Your task to perform on an android device: Open calendar and show me the first week of next month Image 0: 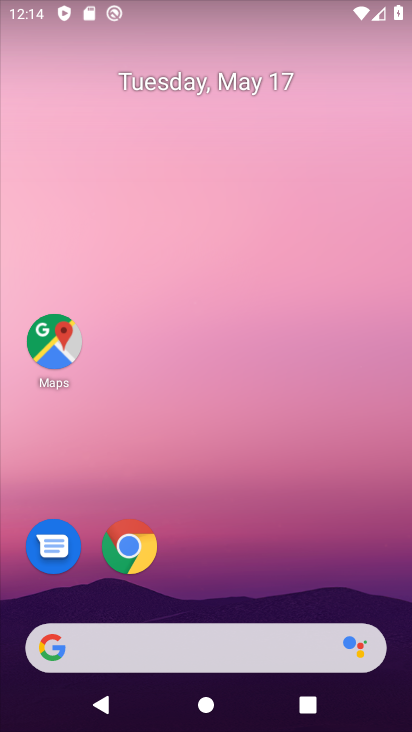
Step 0: drag from (390, 603) to (345, 39)
Your task to perform on an android device: Open calendar and show me the first week of next month Image 1: 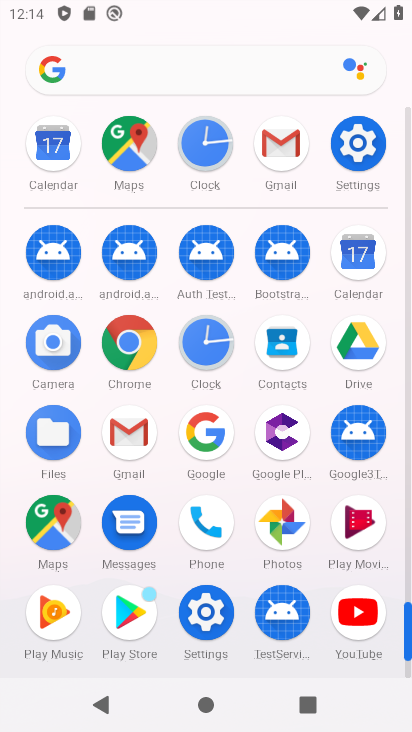
Step 1: click (410, 584)
Your task to perform on an android device: Open calendar and show me the first week of next month Image 2: 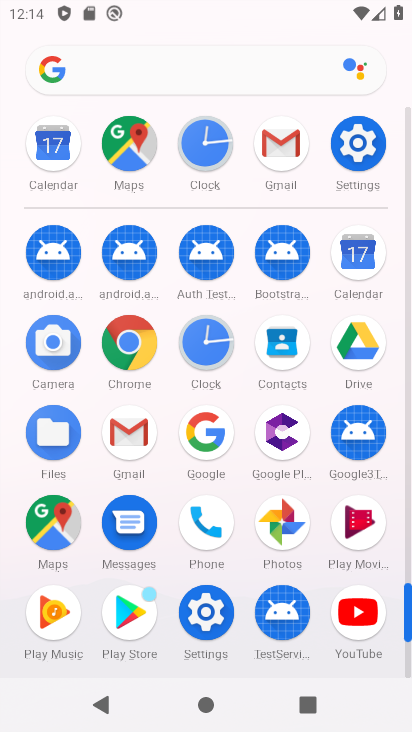
Step 2: click (355, 246)
Your task to perform on an android device: Open calendar and show me the first week of next month Image 3: 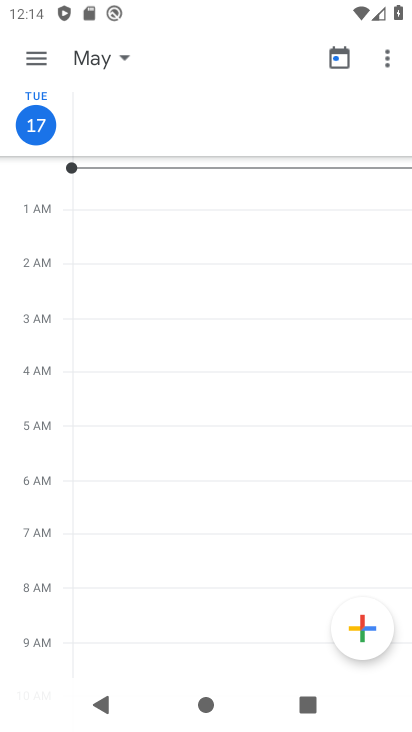
Step 3: click (36, 53)
Your task to perform on an android device: Open calendar and show me the first week of next month Image 4: 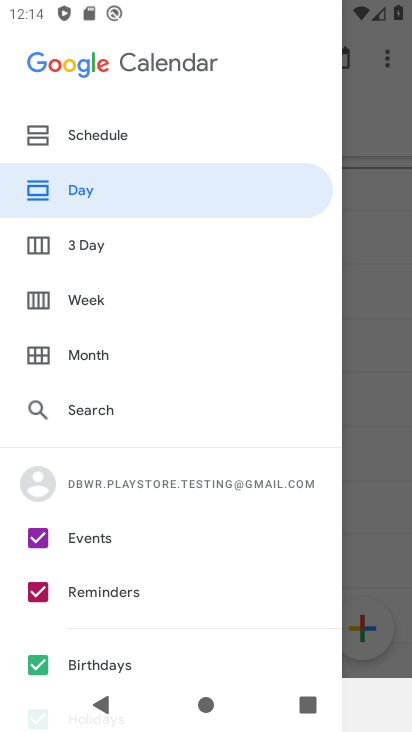
Step 4: click (84, 299)
Your task to perform on an android device: Open calendar and show me the first week of next month Image 5: 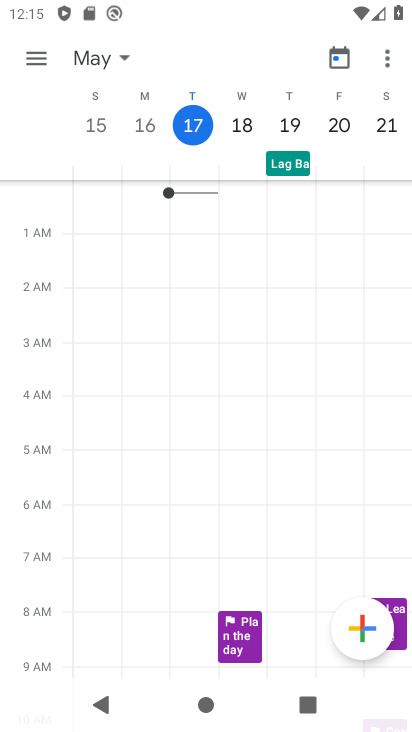
Step 5: click (124, 56)
Your task to perform on an android device: Open calendar and show me the first week of next month Image 6: 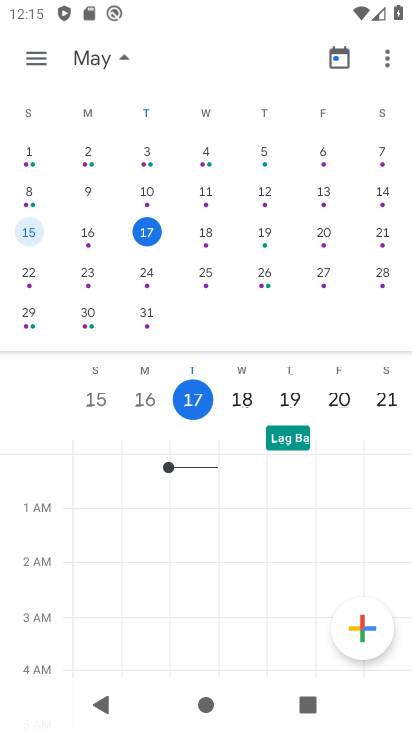
Step 6: drag from (376, 238) to (48, 177)
Your task to perform on an android device: Open calendar and show me the first week of next month Image 7: 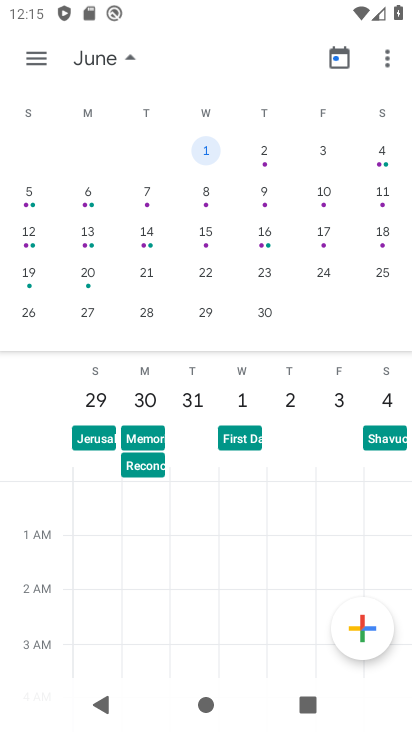
Step 7: click (207, 146)
Your task to perform on an android device: Open calendar and show me the first week of next month Image 8: 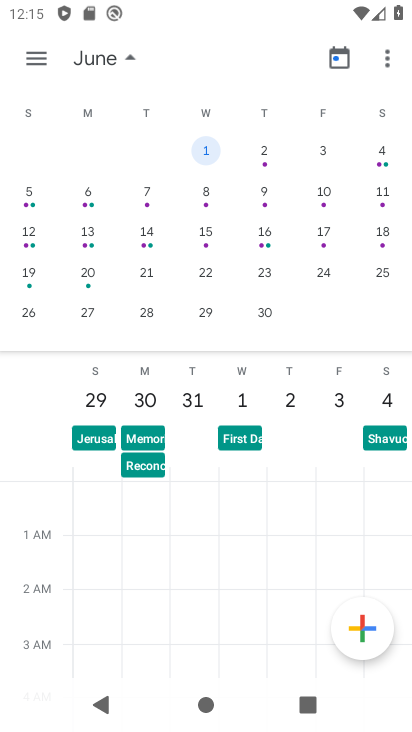
Step 8: click (207, 146)
Your task to perform on an android device: Open calendar and show me the first week of next month Image 9: 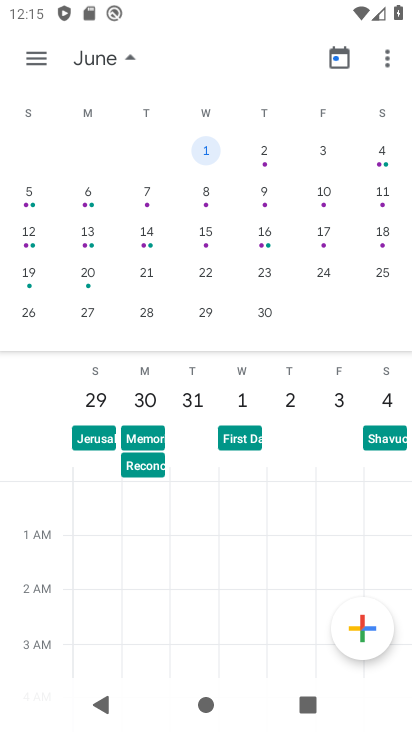
Step 9: task complete